Your task to perform on an android device: delete location history Image 0: 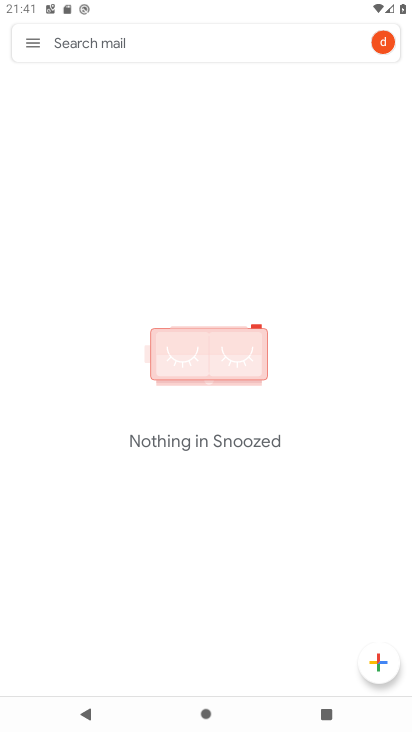
Step 0: press back button
Your task to perform on an android device: delete location history Image 1: 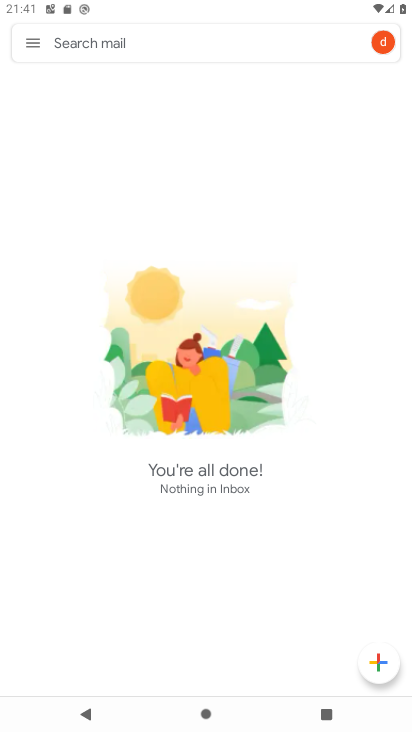
Step 1: press back button
Your task to perform on an android device: delete location history Image 2: 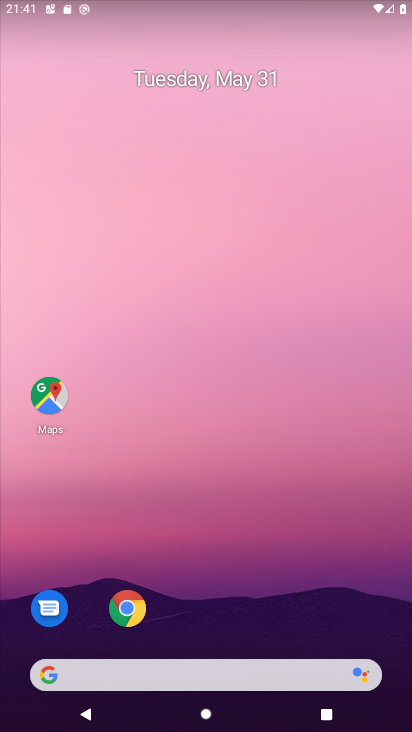
Step 2: click (47, 395)
Your task to perform on an android device: delete location history Image 3: 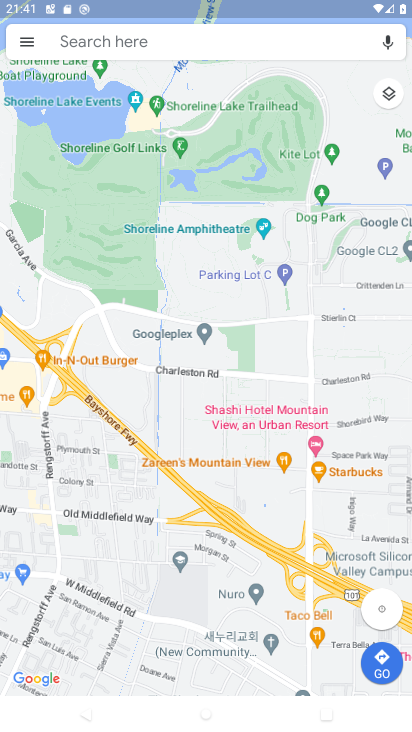
Step 3: click (28, 43)
Your task to perform on an android device: delete location history Image 4: 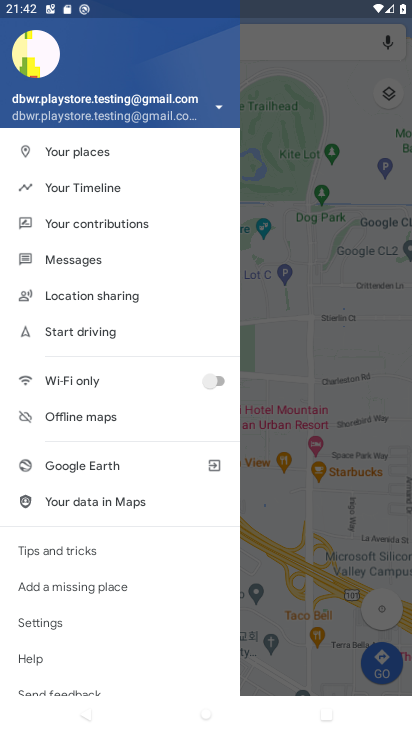
Step 4: click (41, 616)
Your task to perform on an android device: delete location history Image 5: 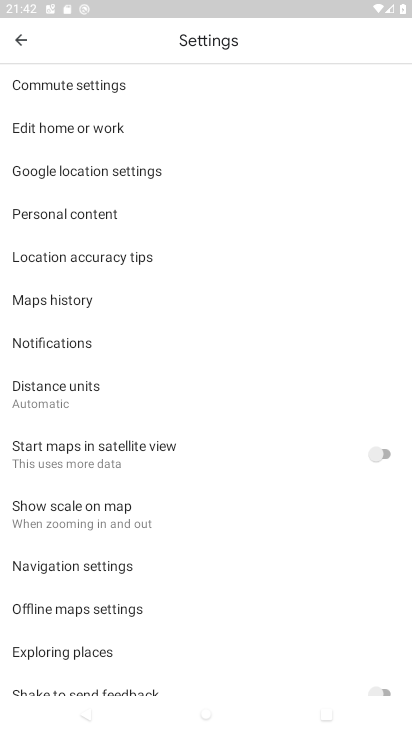
Step 5: click (91, 212)
Your task to perform on an android device: delete location history Image 6: 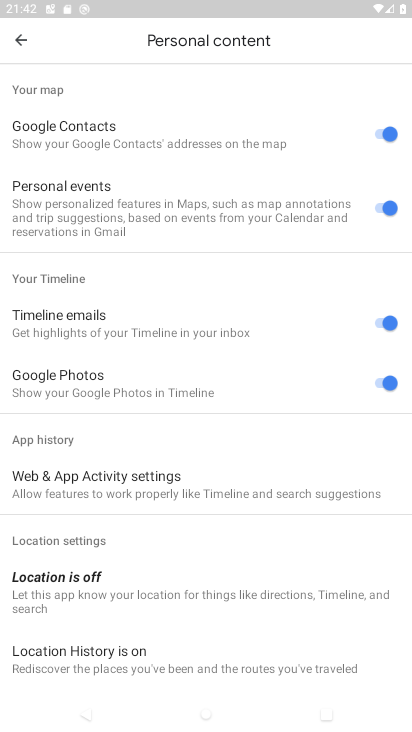
Step 6: drag from (170, 436) to (148, 286)
Your task to perform on an android device: delete location history Image 7: 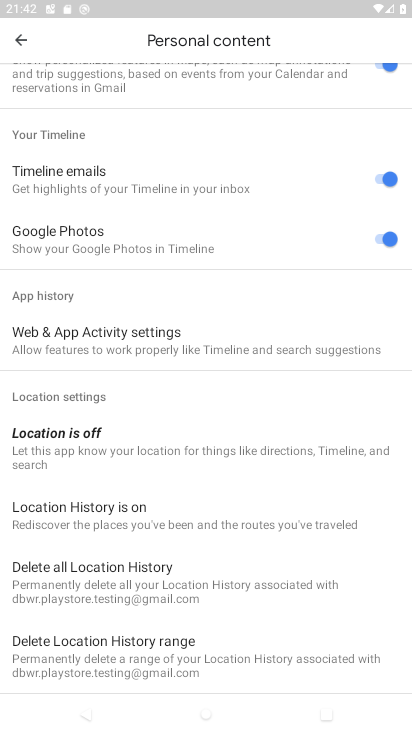
Step 7: drag from (154, 387) to (169, 300)
Your task to perform on an android device: delete location history Image 8: 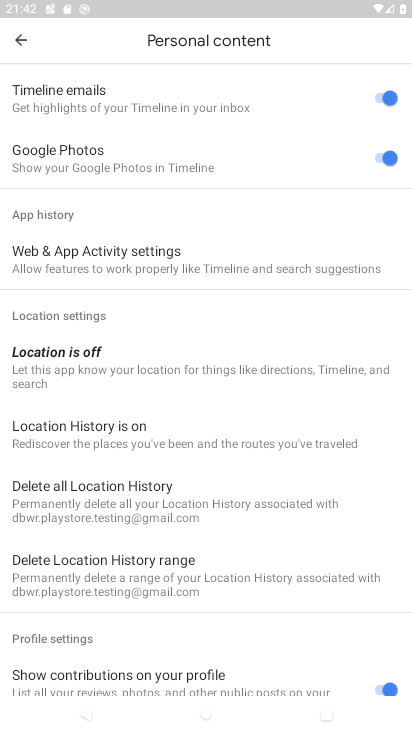
Step 8: click (127, 495)
Your task to perform on an android device: delete location history Image 9: 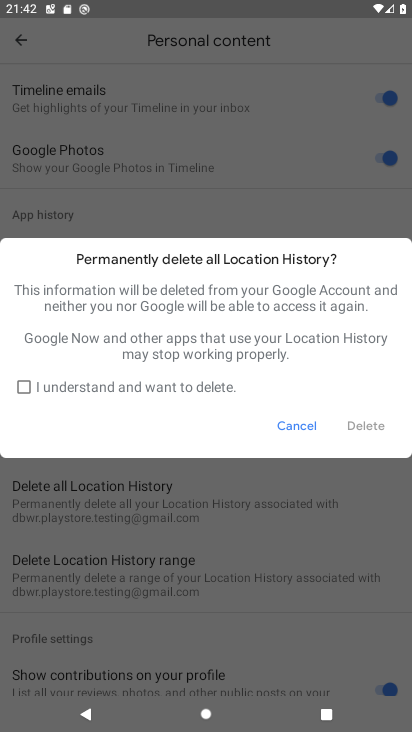
Step 9: click (23, 387)
Your task to perform on an android device: delete location history Image 10: 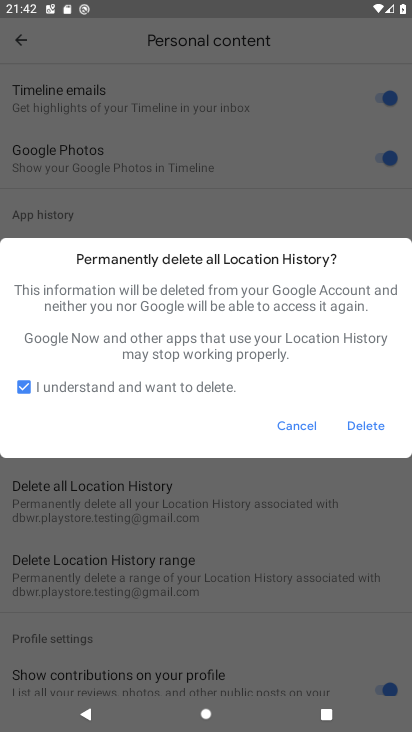
Step 10: click (359, 430)
Your task to perform on an android device: delete location history Image 11: 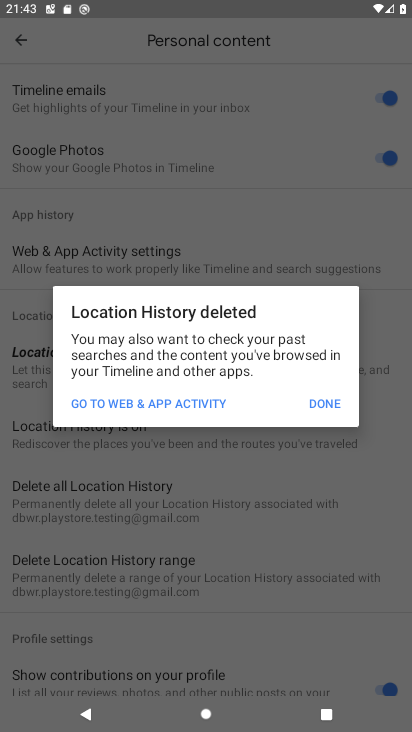
Step 11: click (318, 411)
Your task to perform on an android device: delete location history Image 12: 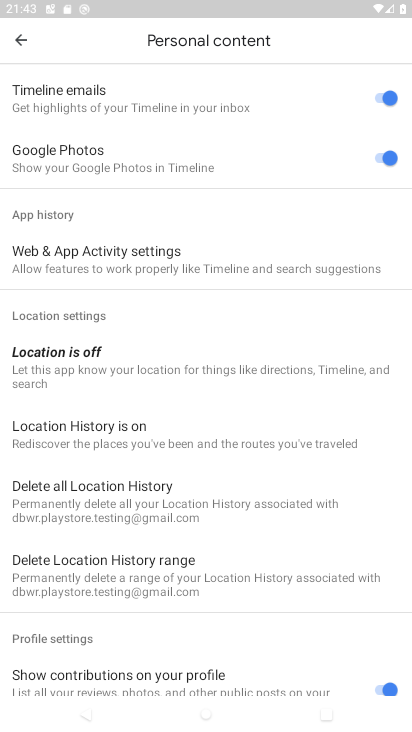
Step 12: task complete